Your task to perform on an android device: turn on sleep mode Image 0: 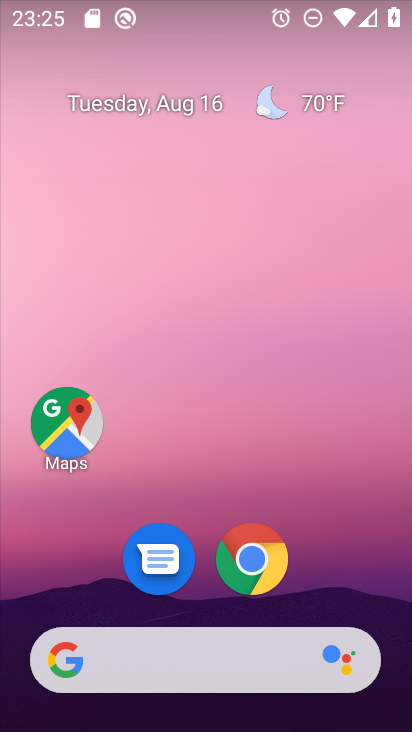
Step 0: drag from (174, 651) to (226, 111)
Your task to perform on an android device: turn on sleep mode Image 1: 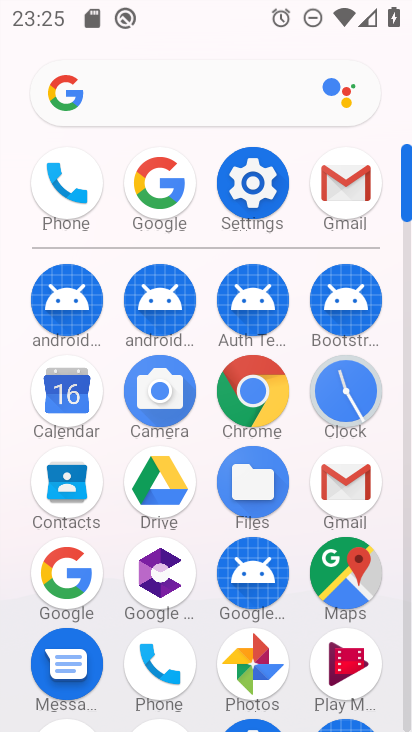
Step 1: click (253, 183)
Your task to perform on an android device: turn on sleep mode Image 2: 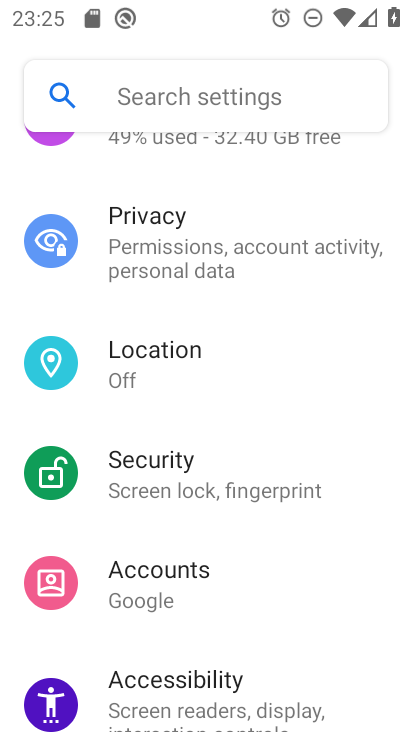
Step 2: drag from (228, 343) to (252, 448)
Your task to perform on an android device: turn on sleep mode Image 3: 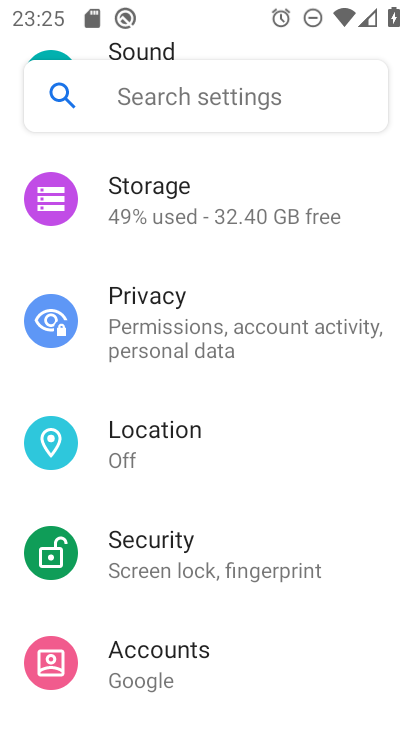
Step 3: drag from (245, 290) to (245, 417)
Your task to perform on an android device: turn on sleep mode Image 4: 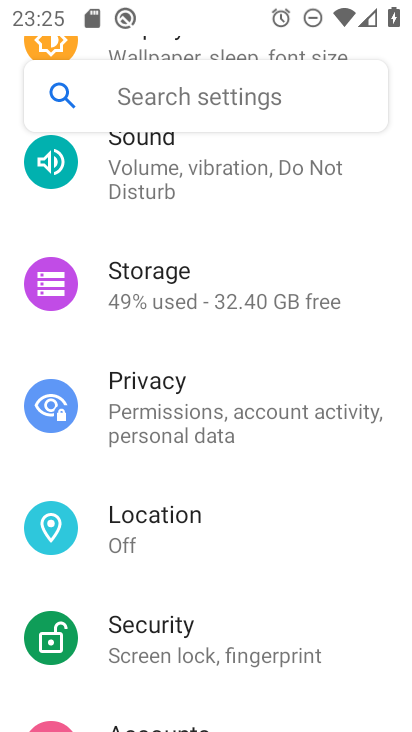
Step 4: drag from (207, 253) to (252, 403)
Your task to perform on an android device: turn on sleep mode Image 5: 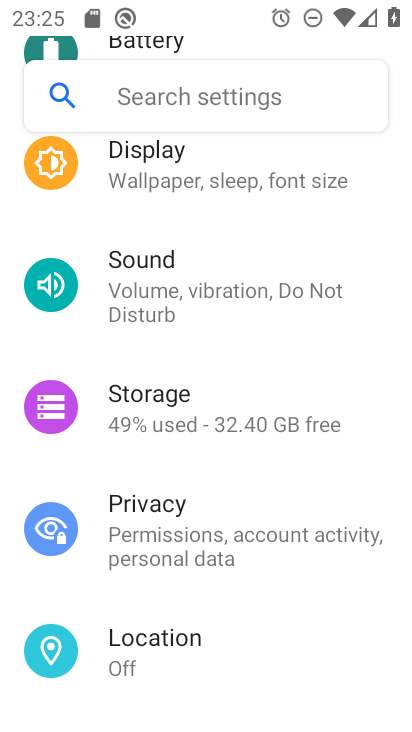
Step 5: drag from (208, 259) to (219, 448)
Your task to perform on an android device: turn on sleep mode Image 6: 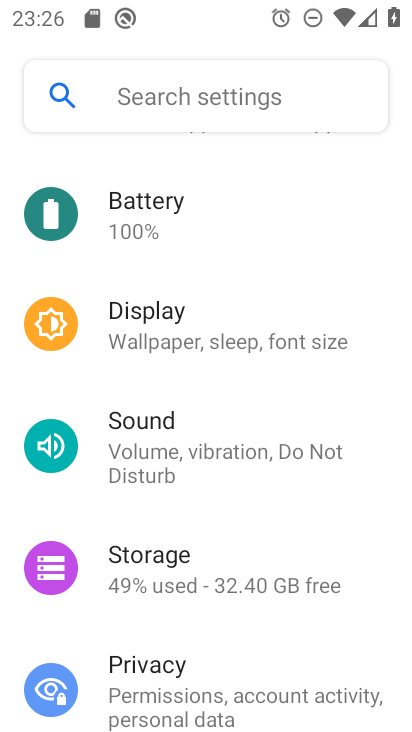
Step 6: drag from (192, 293) to (236, 465)
Your task to perform on an android device: turn on sleep mode Image 7: 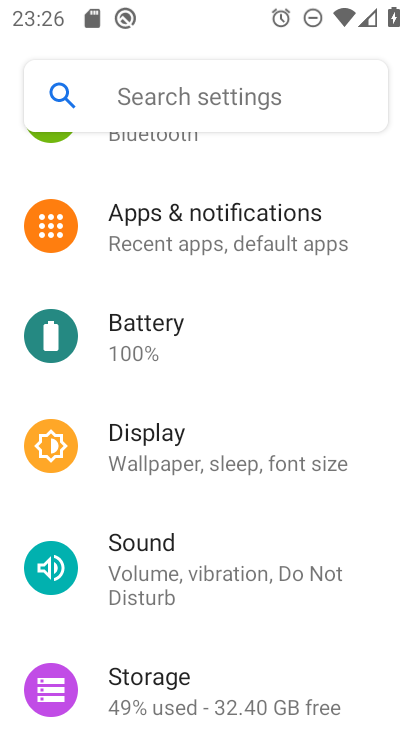
Step 7: drag from (238, 331) to (231, 445)
Your task to perform on an android device: turn on sleep mode Image 8: 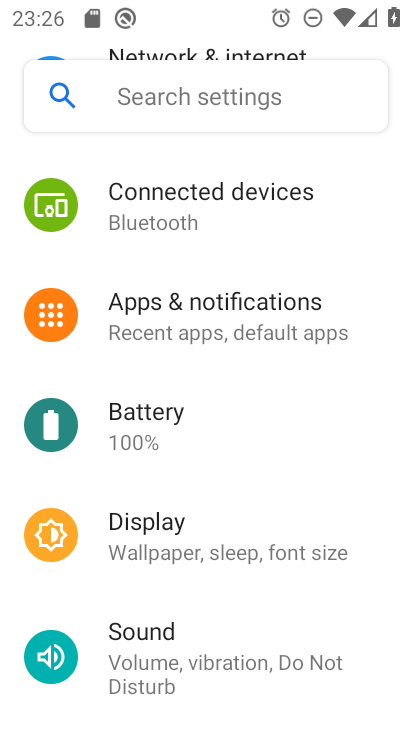
Step 8: drag from (221, 246) to (234, 392)
Your task to perform on an android device: turn on sleep mode Image 9: 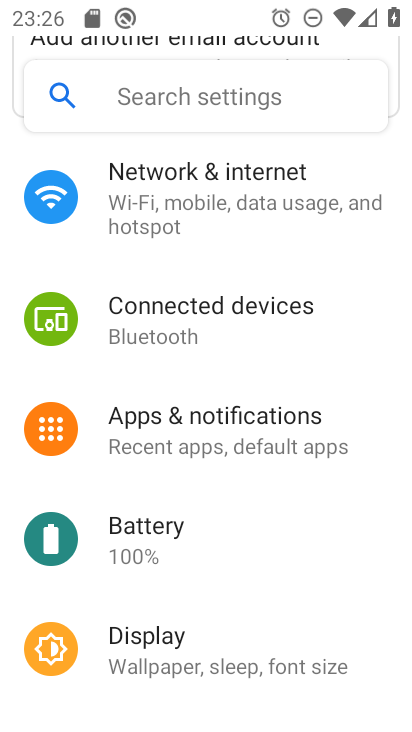
Step 9: drag from (202, 494) to (280, 404)
Your task to perform on an android device: turn on sleep mode Image 10: 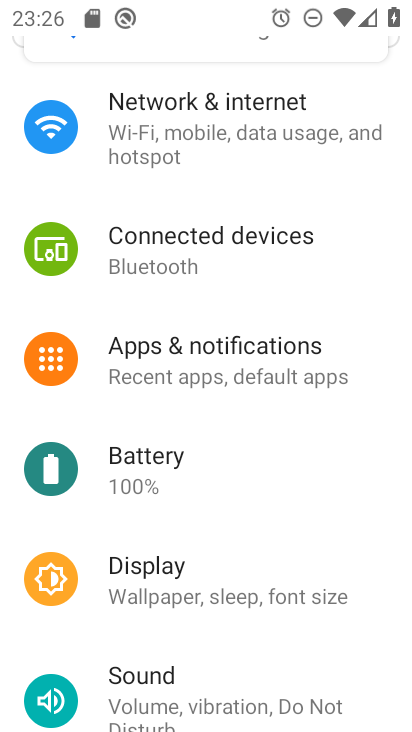
Step 10: click (199, 583)
Your task to perform on an android device: turn on sleep mode Image 11: 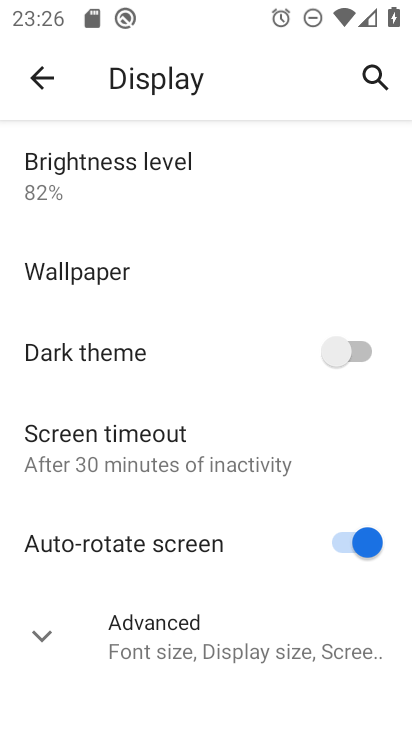
Step 11: task complete